Your task to perform on an android device: Search for top rated pizza restaurants on Maps Image 0: 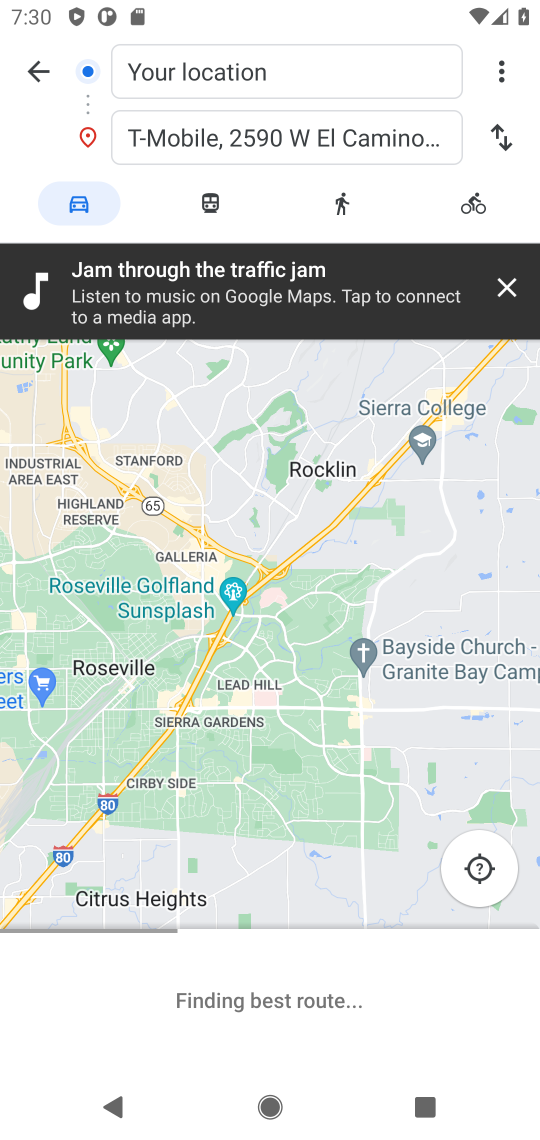
Step 0: press home button
Your task to perform on an android device: Search for top rated pizza restaurants on Maps Image 1: 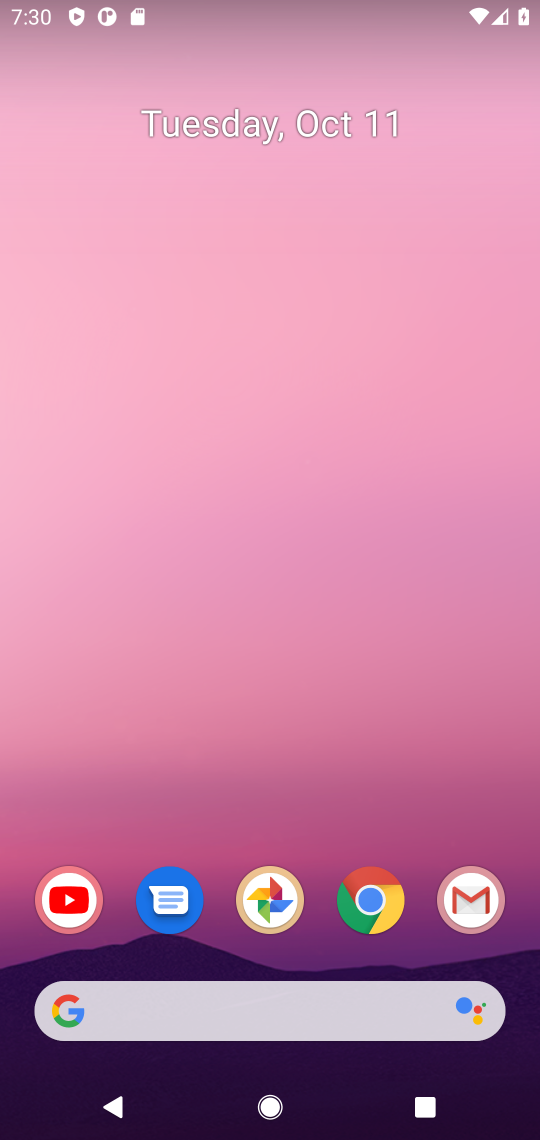
Step 1: drag from (284, 848) to (327, 360)
Your task to perform on an android device: Search for top rated pizza restaurants on Maps Image 2: 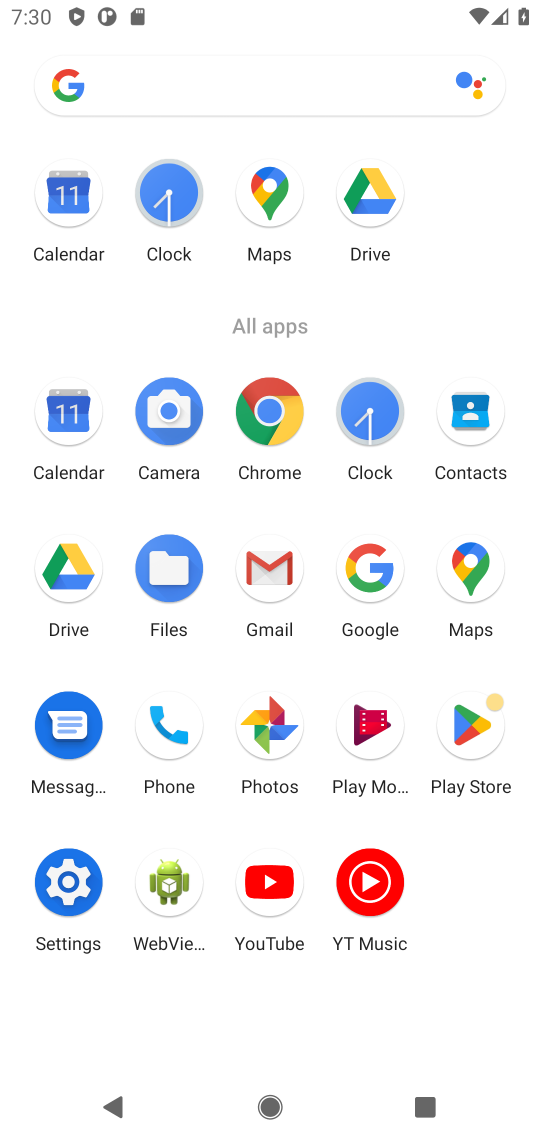
Step 2: click (471, 576)
Your task to perform on an android device: Search for top rated pizza restaurants on Maps Image 3: 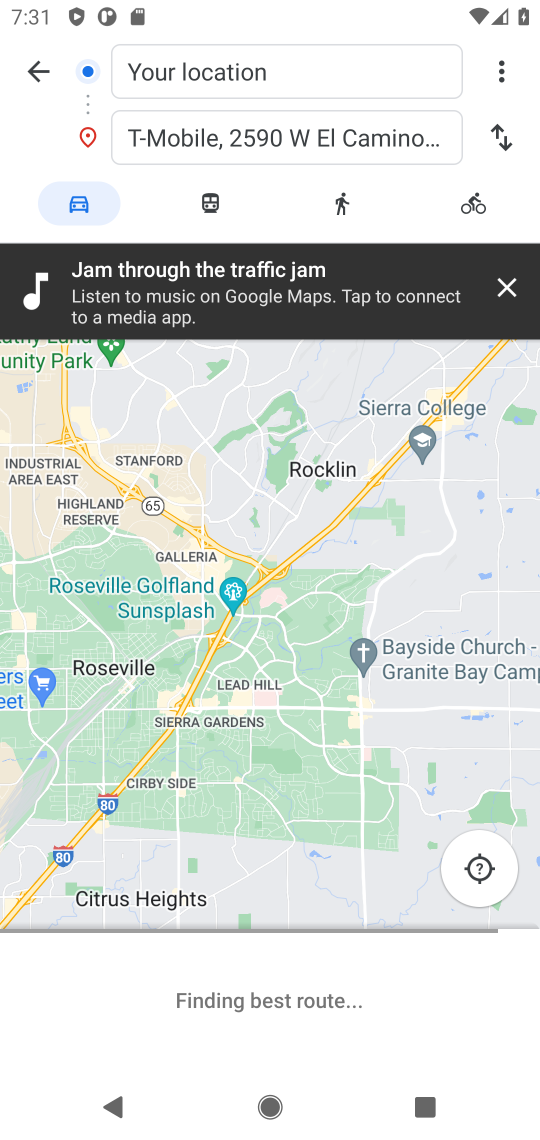
Step 3: click (33, 71)
Your task to perform on an android device: Search for top rated pizza restaurants on Maps Image 4: 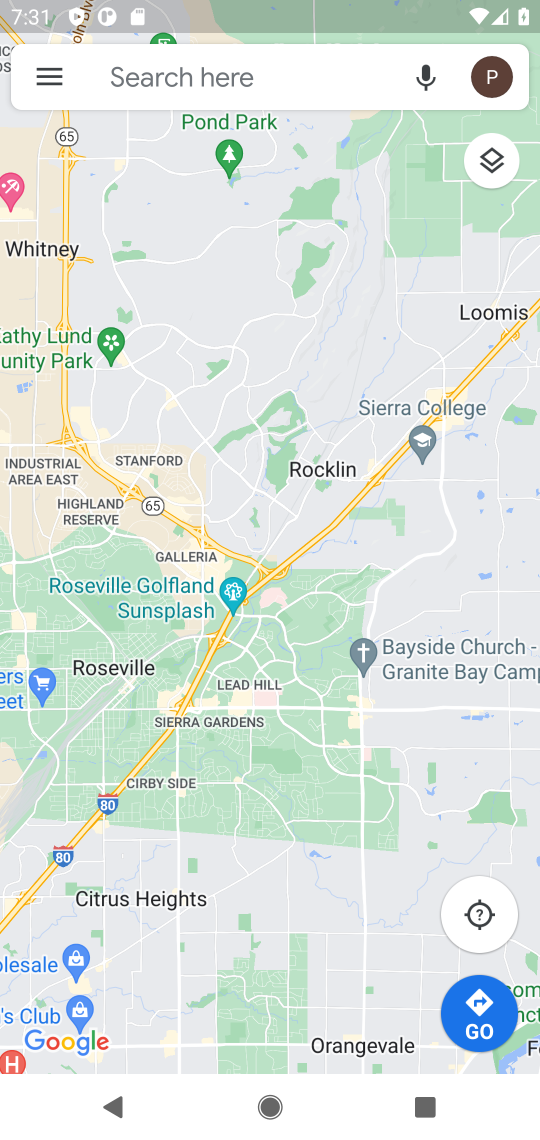
Step 4: click (265, 76)
Your task to perform on an android device: Search for top rated pizza restaurants on Maps Image 5: 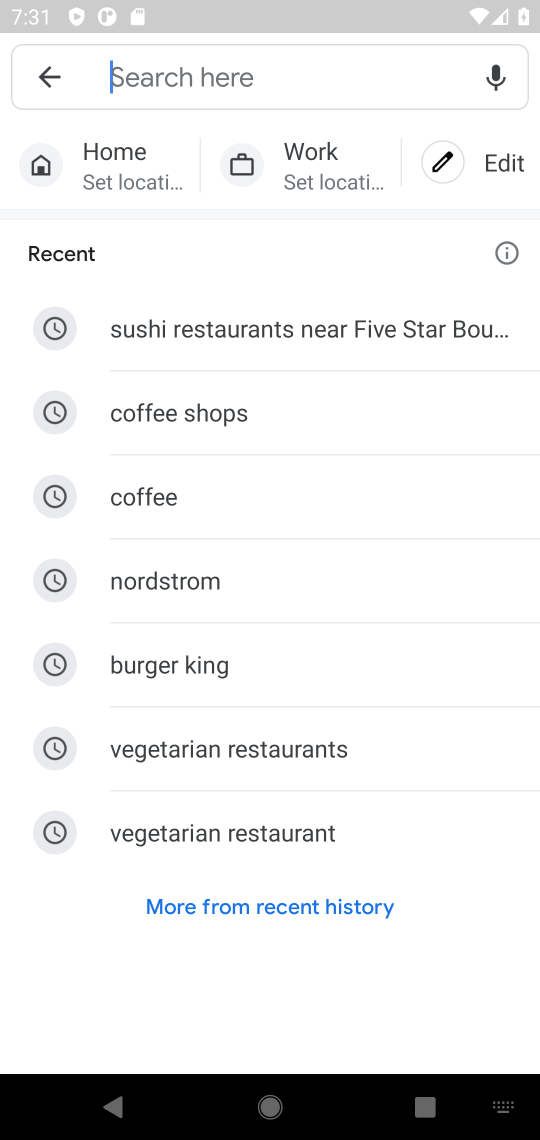
Step 5: type "top rated pizza restaurants"
Your task to perform on an android device: Search for top rated pizza restaurants on Maps Image 6: 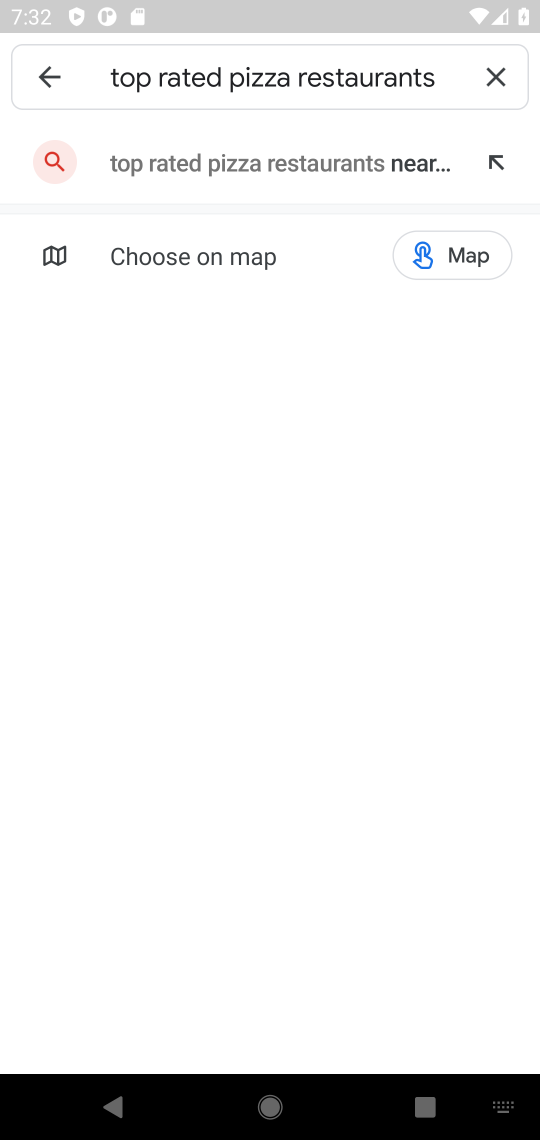
Step 6: press enter
Your task to perform on an android device: Search for top rated pizza restaurants on Maps Image 7: 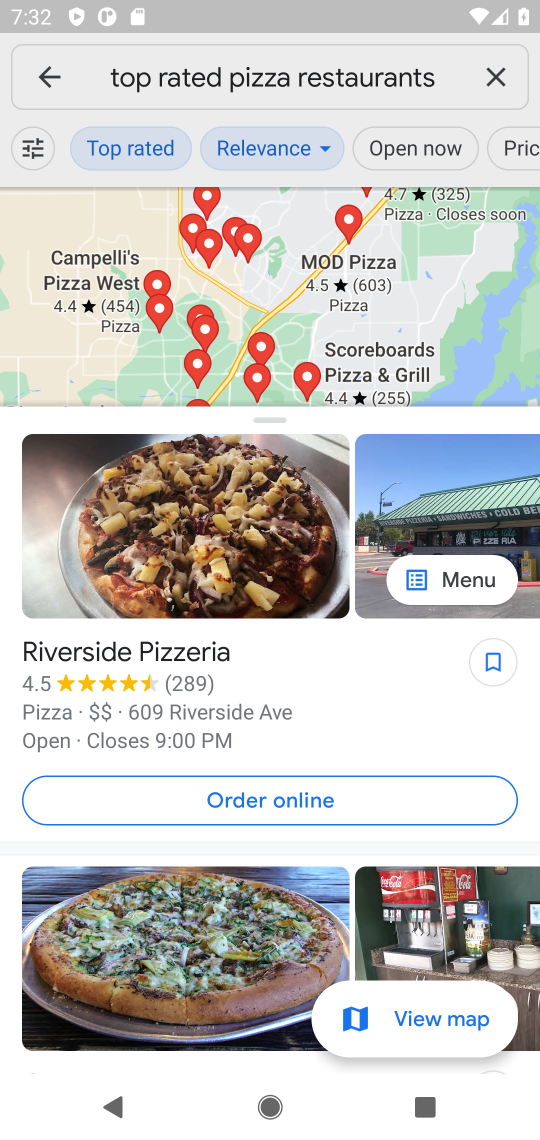
Step 7: task complete